Your task to perform on an android device: Go to accessibility settings Image 0: 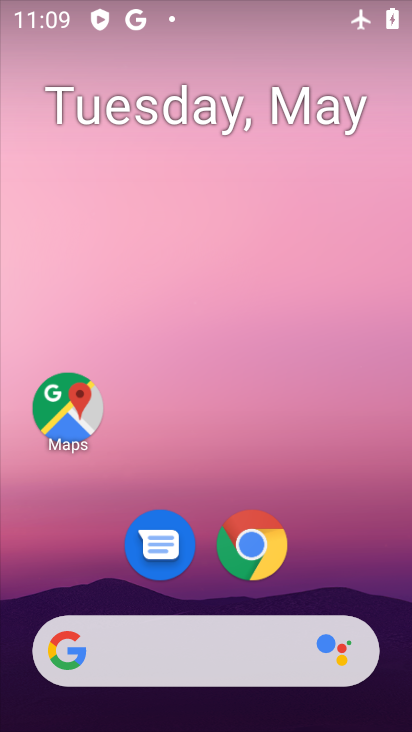
Step 0: drag from (372, 549) to (365, 170)
Your task to perform on an android device: Go to accessibility settings Image 1: 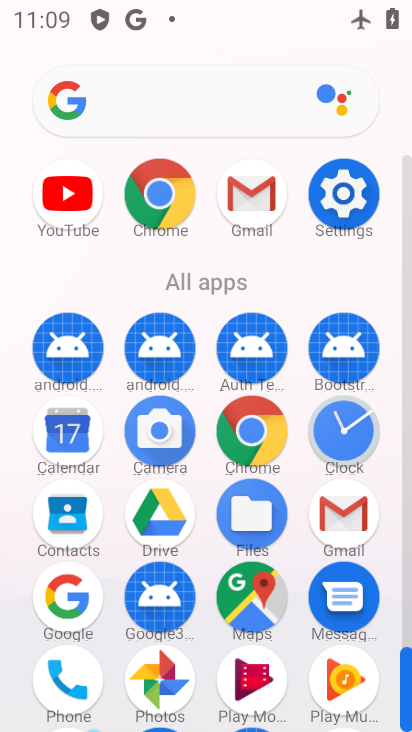
Step 1: click (359, 220)
Your task to perform on an android device: Go to accessibility settings Image 2: 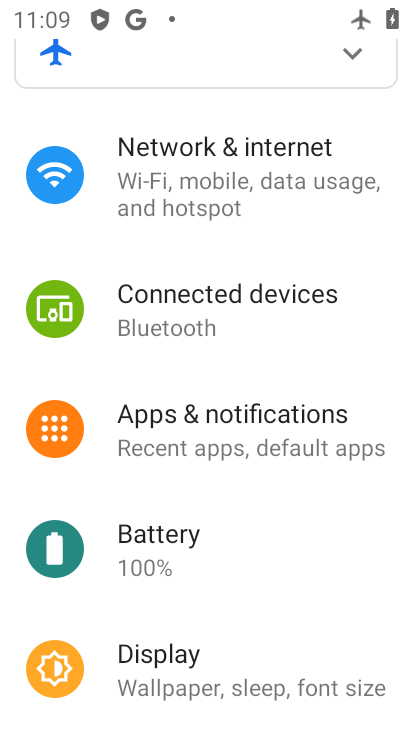
Step 2: drag from (299, 607) to (315, 319)
Your task to perform on an android device: Go to accessibility settings Image 3: 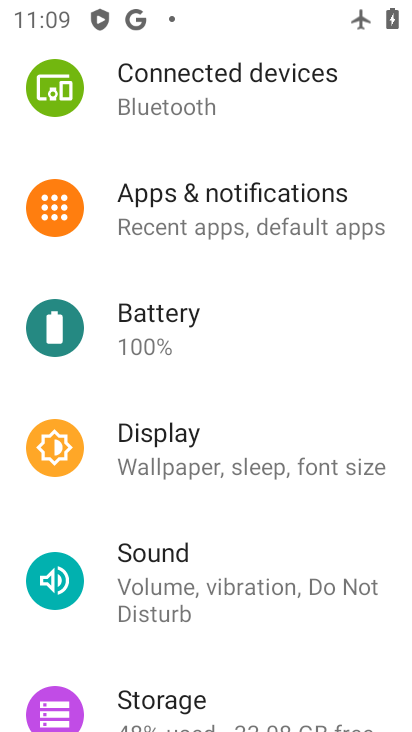
Step 3: drag from (281, 618) to (291, 230)
Your task to perform on an android device: Go to accessibility settings Image 4: 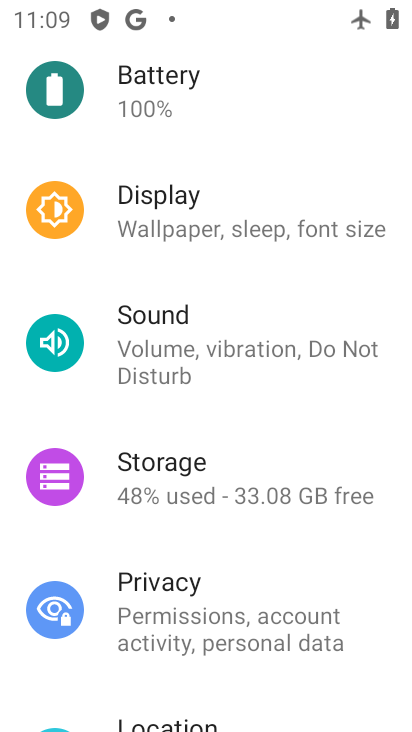
Step 4: drag from (250, 578) to (249, 201)
Your task to perform on an android device: Go to accessibility settings Image 5: 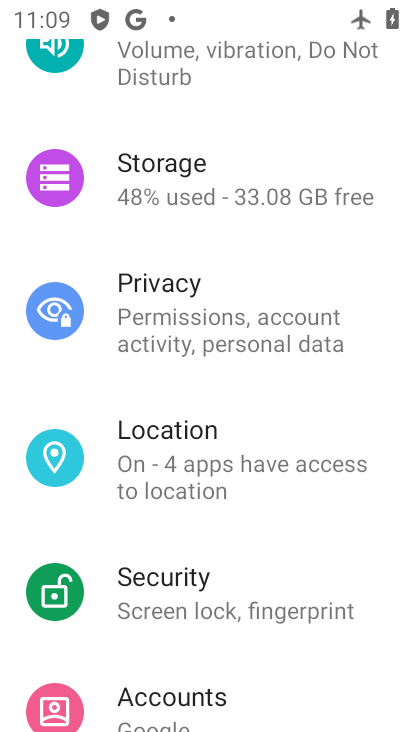
Step 5: drag from (290, 623) to (279, 257)
Your task to perform on an android device: Go to accessibility settings Image 6: 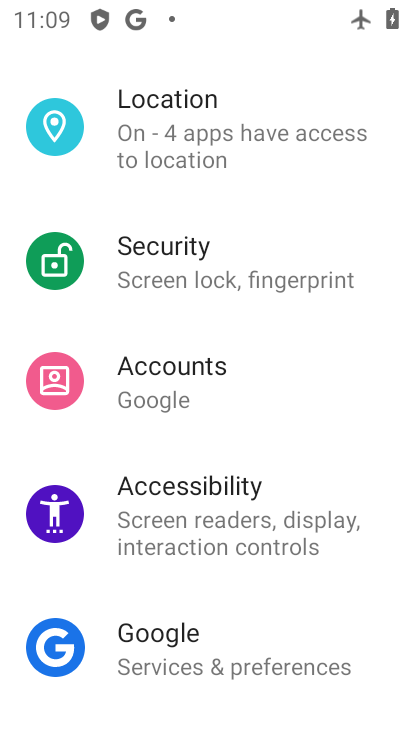
Step 6: click (240, 504)
Your task to perform on an android device: Go to accessibility settings Image 7: 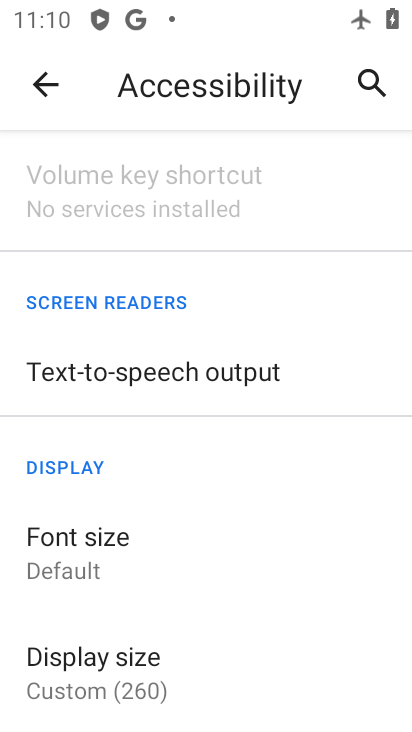
Step 7: task complete